Your task to perform on an android device: Go to internet settings Image 0: 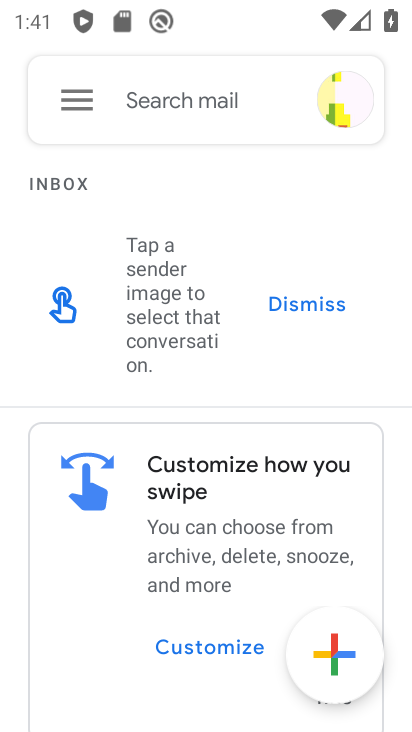
Step 0: press home button
Your task to perform on an android device: Go to internet settings Image 1: 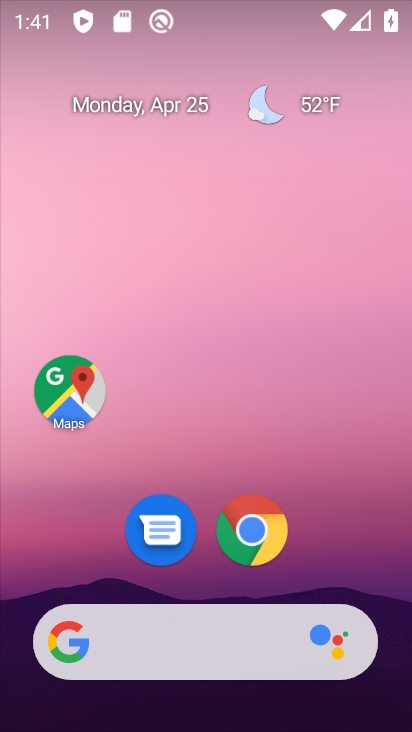
Step 1: drag from (383, 590) to (380, 119)
Your task to perform on an android device: Go to internet settings Image 2: 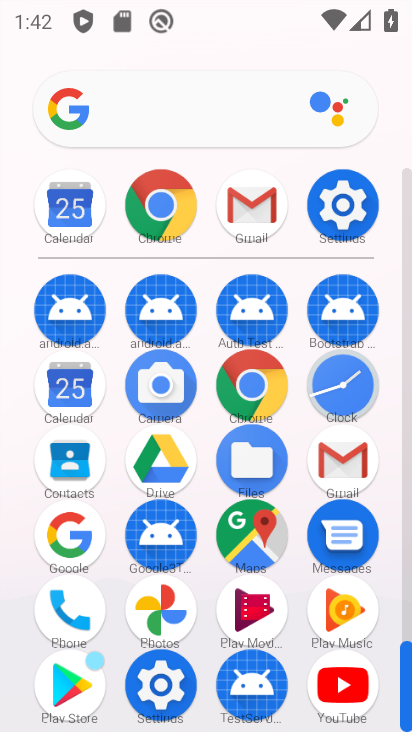
Step 2: click (358, 213)
Your task to perform on an android device: Go to internet settings Image 3: 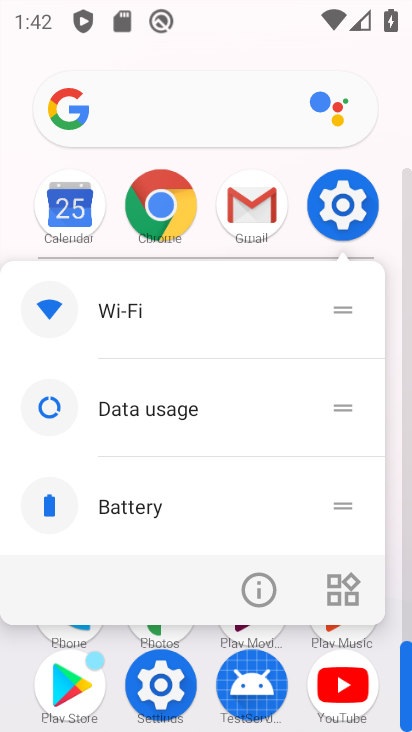
Step 3: click (358, 216)
Your task to perform on an android device: Go to internet settings Image 4: 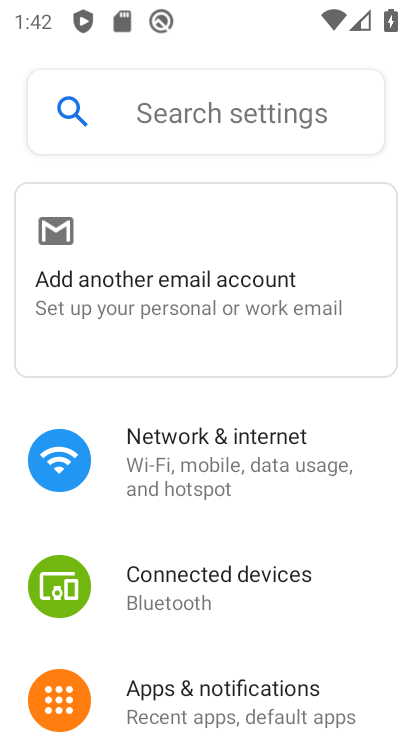
Step 4: drag from (274, 641) to (356, 354)
Your task to perform on an android device: Go to internet settings Image 5: 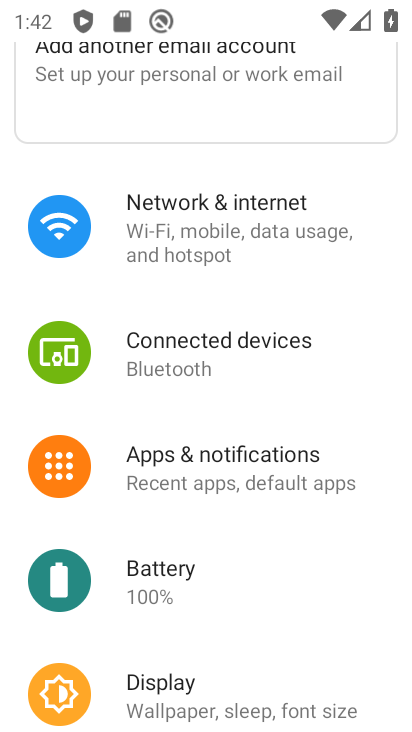
Step 5: click (230, 245)
Your task to perform on an android device: Go to internet settings Image 6: 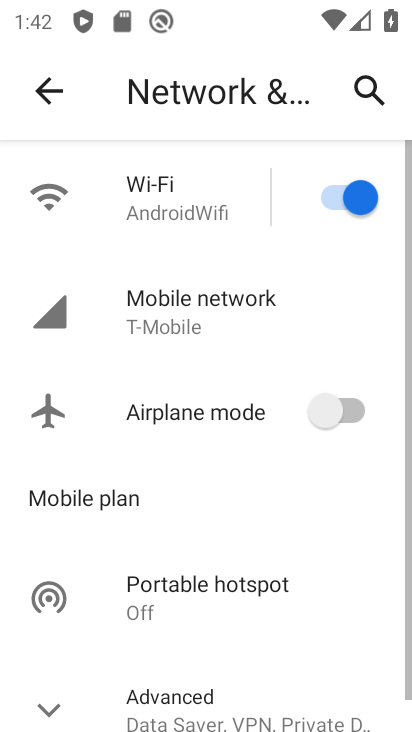
Step 6: click (206, 318)
Your task to perform on an android device: Go to internet settings Image 7: 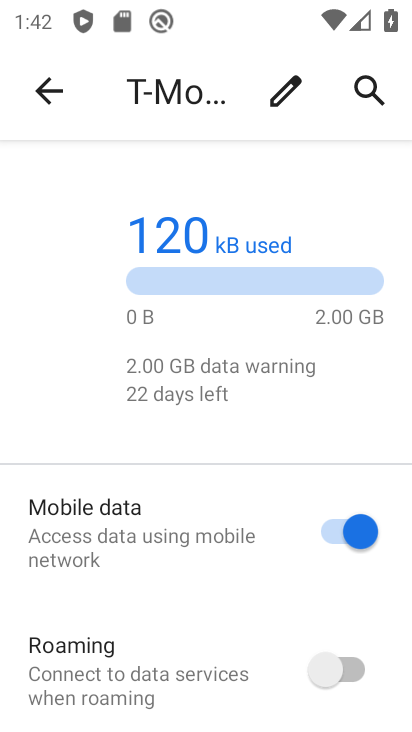
Step 7: task complete